Your task to perform on an android device: turn off sleep mode Image 0: 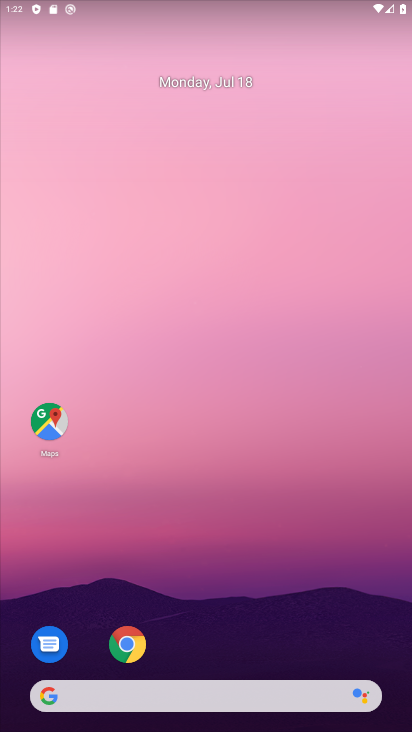
Step 0: drag from (295, 628) to (292, 90)
Your task to perform on an android device: turn off sleep mode Image 1: 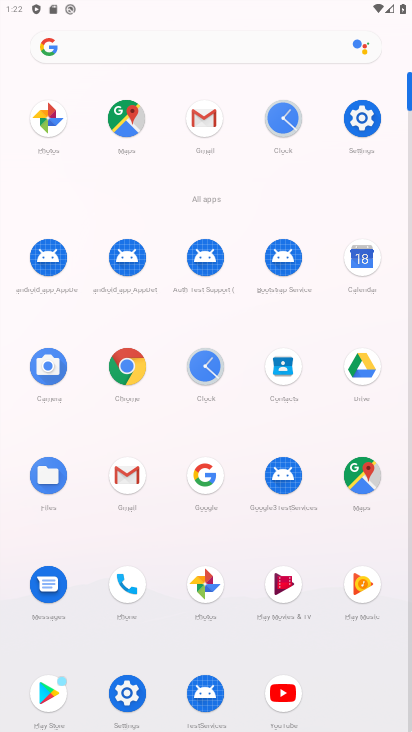
Step 1: click (355, 121)
Your task to perform on an android device: turn off sleep mode Image 2: 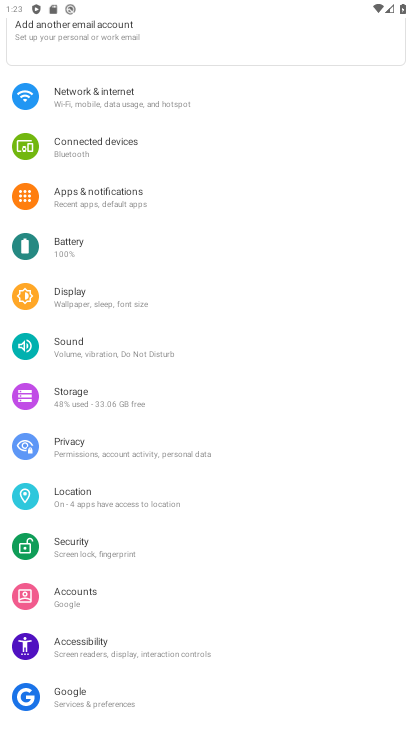
Step 2: click (55, 304)
Your task to perform on an android device: turn off sleep mode Image 3: 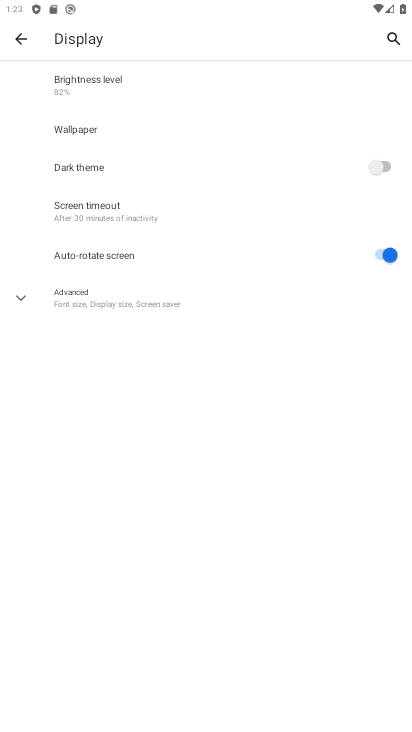
Step 3: click (90, 290)
Your task to perform on an android device: turn off sleep mode Image 4: 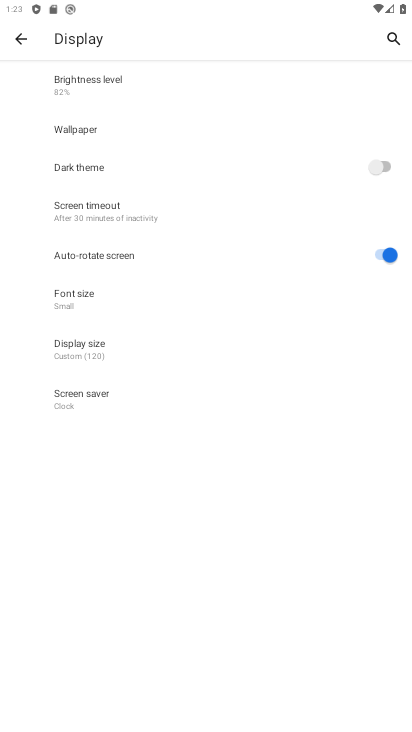
Step 4: task complete